Your task to perform on an android device: open wifi settings Image 0: 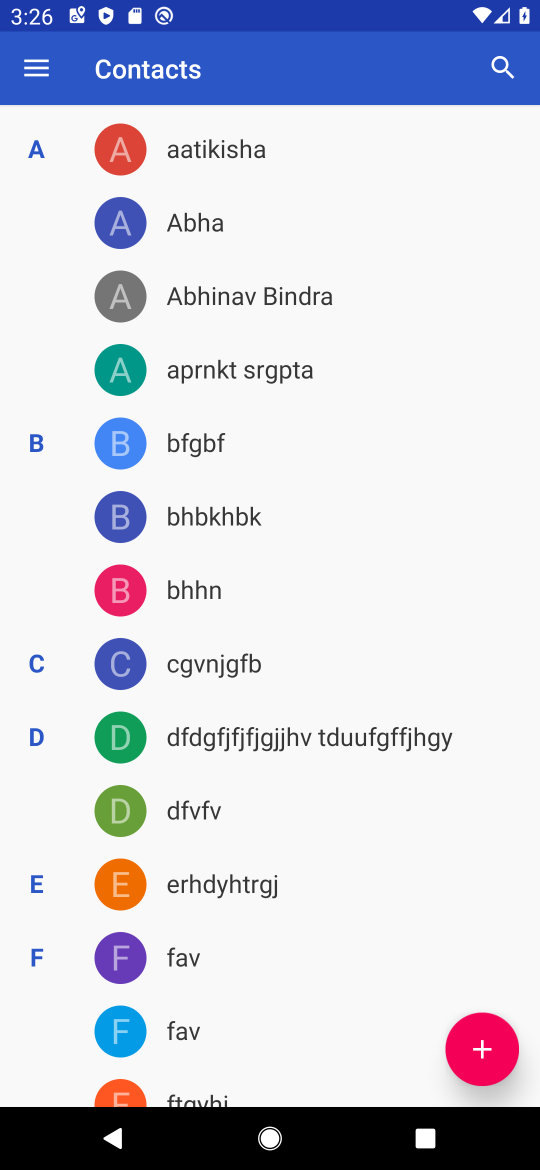
Step 0: press home button
Your task to perform on an android device: open wifi settings Image 1: 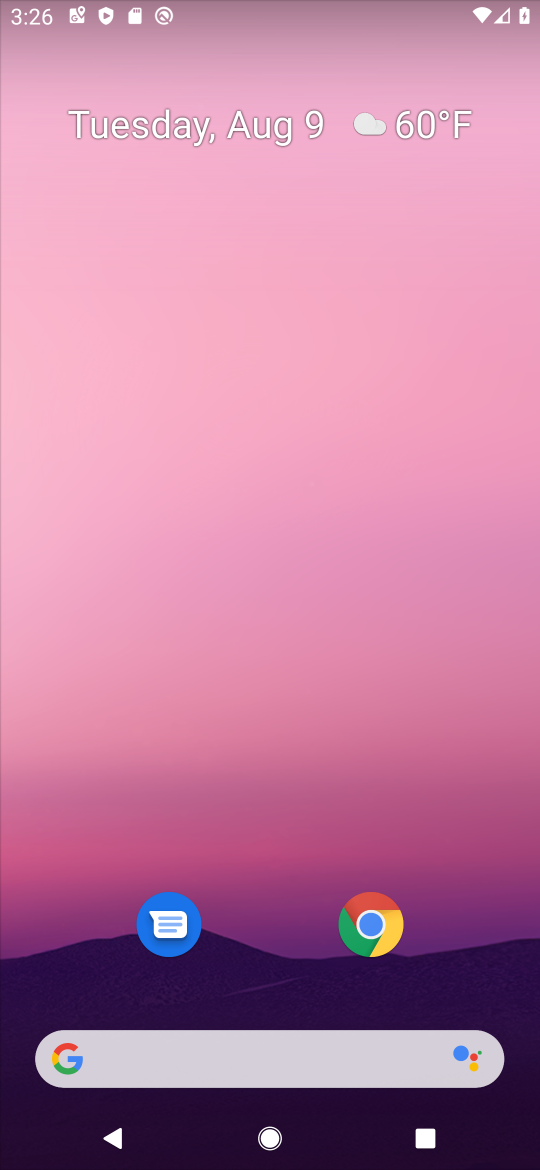
Step 1: drag from (279, 947) to (381, 0)
Your task to perform on an android device: open wifi settings Image 2: 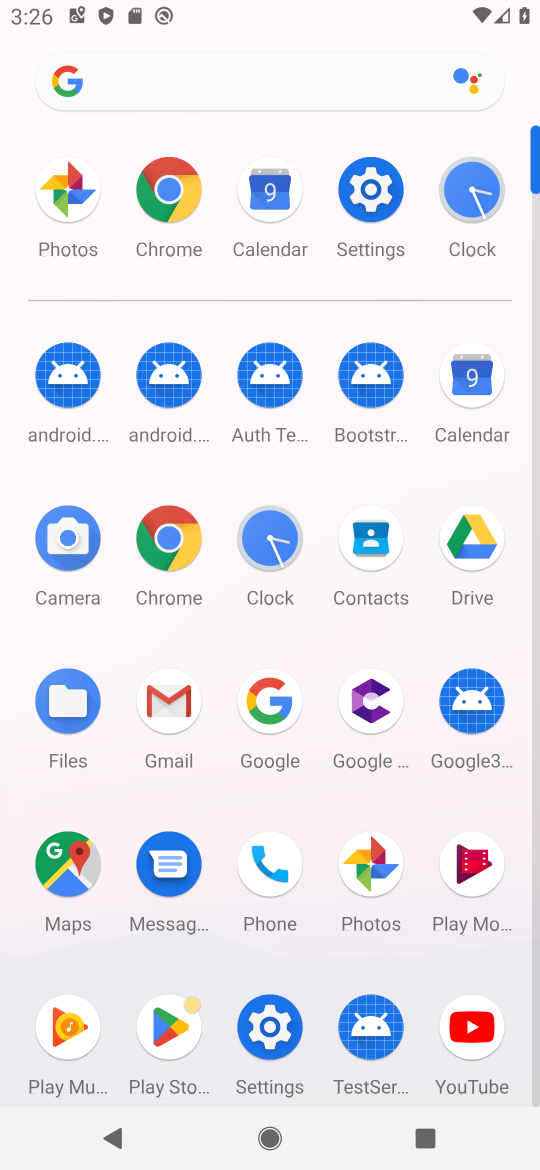
Step 2: click (368, 184)
Your task to perform on an android device: open wifi settings Image 3: 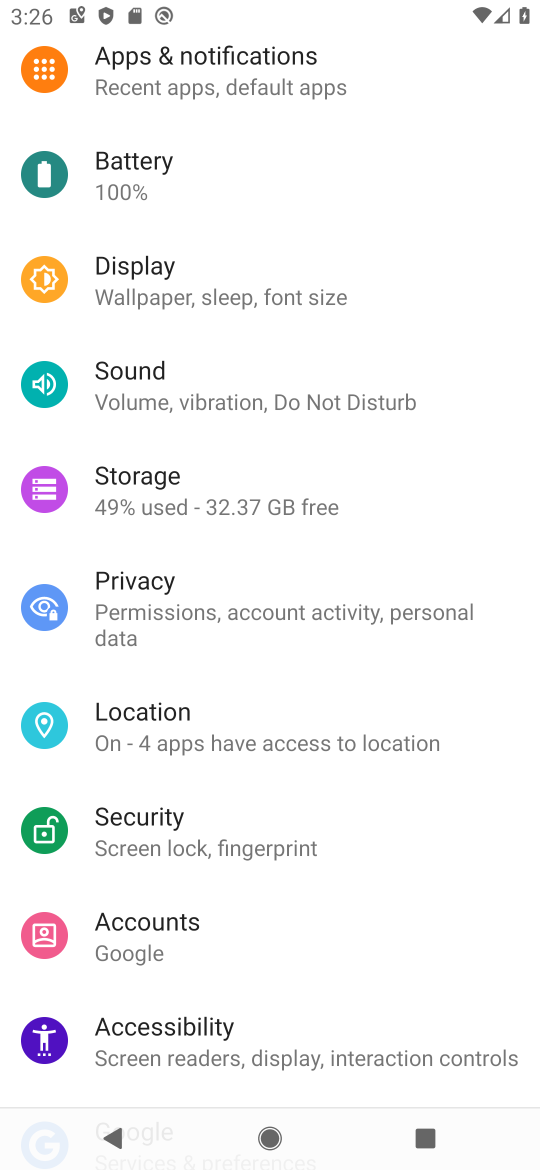
Step 3: drag from (308, 267) to (307, 988)
Your task to perform on an android device: open wifi settings Image 4: 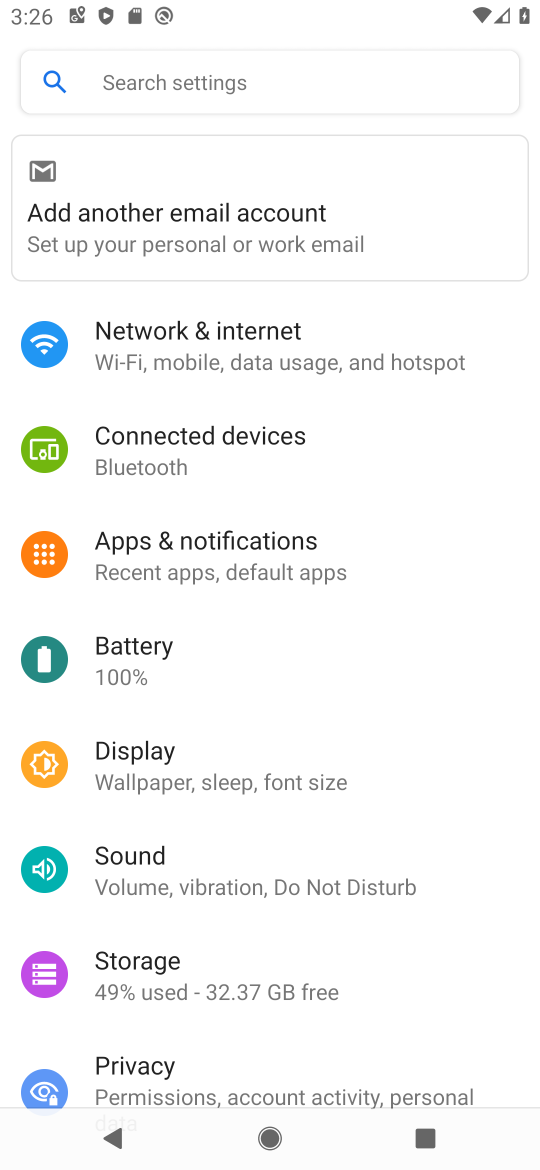
Step 4: click (308, 348)
Your task to perform on an android device: open wifi settings Image 5: 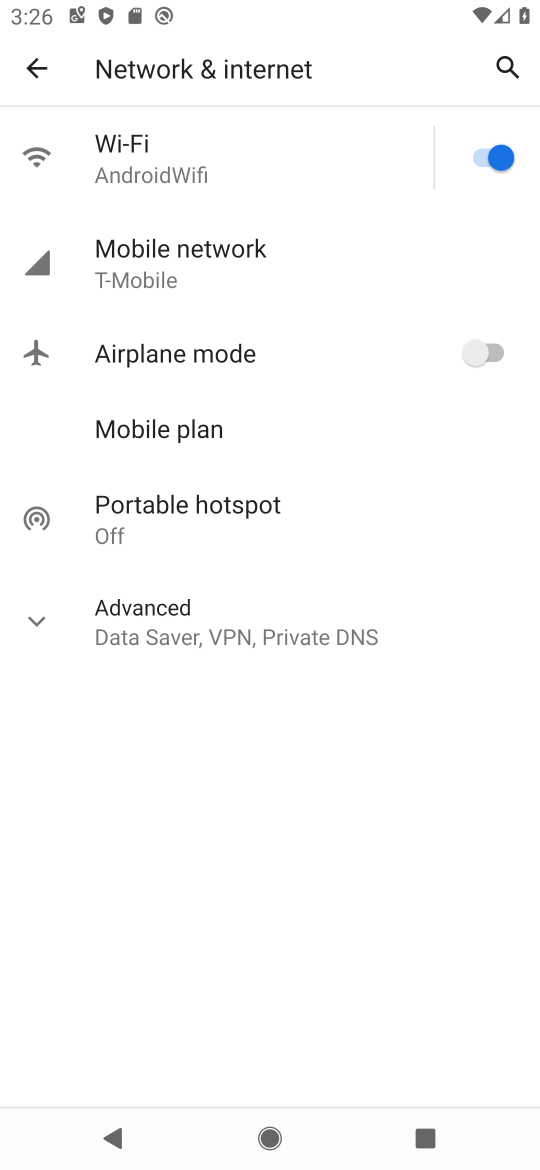
Step 5: click (170, 171)
Your task to perform on an android device: open wifi settings Image 6: 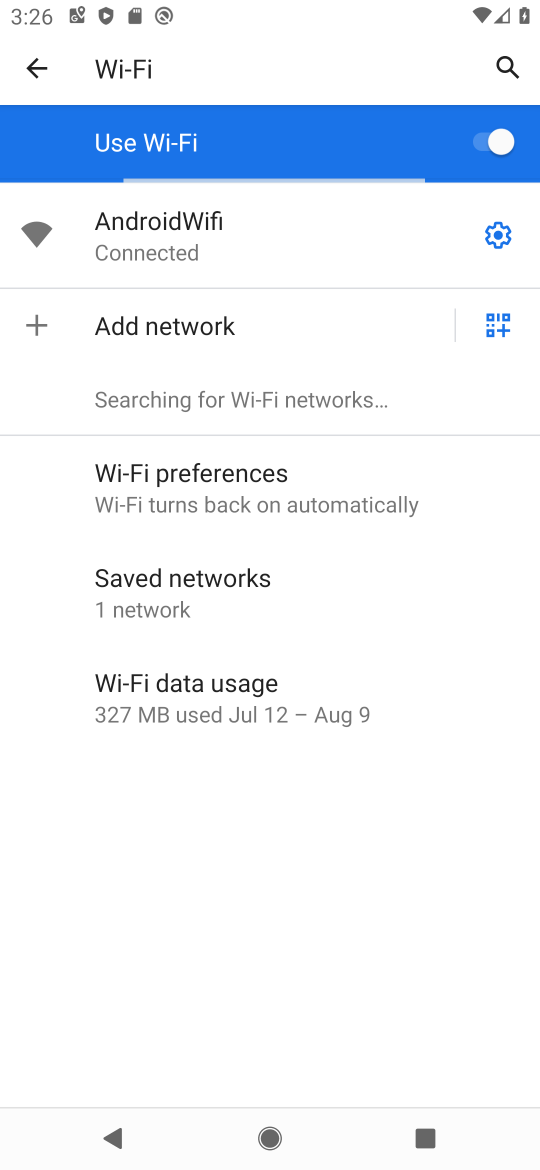
Step 6: task complete